Your task to perform on an android device: Go to battery settings Image 0: 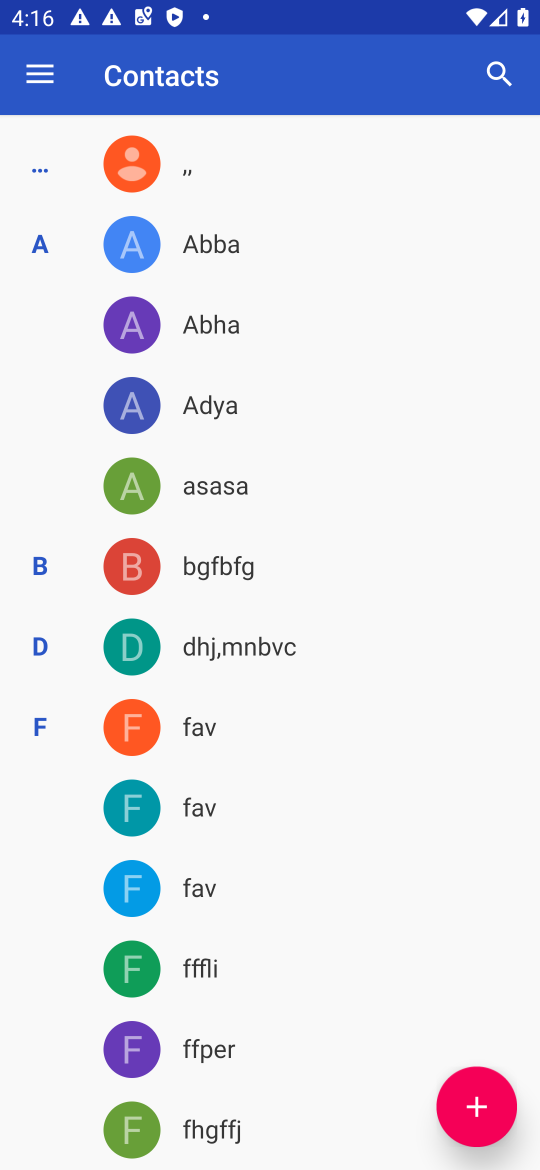
Step 0: task impossible